Your task to perform on an android device: Open CNN.com Image 0: 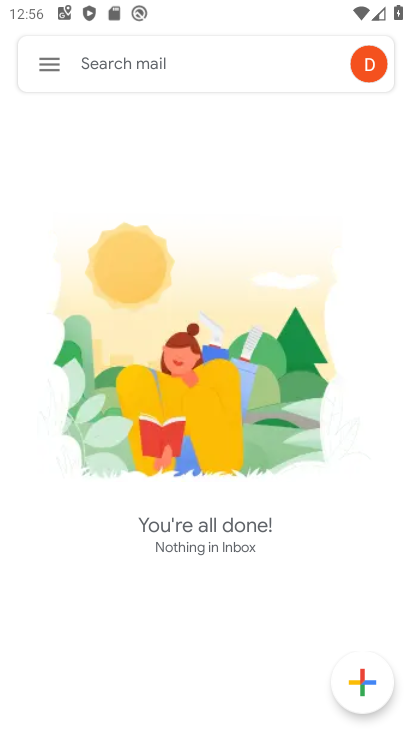
Step 0: press back button
Your task to perform on an android device: Open CNN.com Image 1: 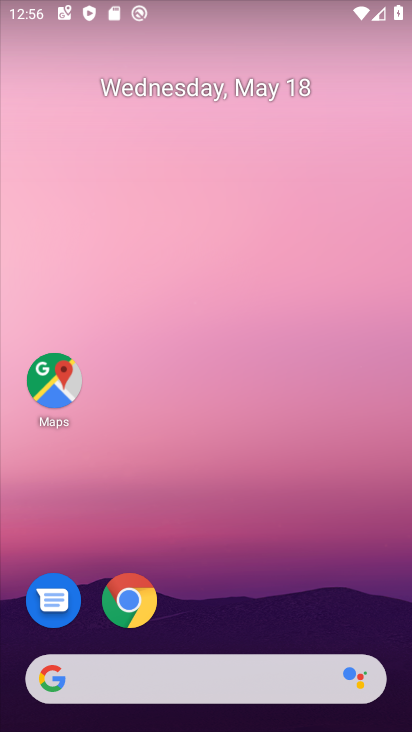
Step 1: click (127, 600)
Your task to perform on an android device: Open CNN.com Image 2: 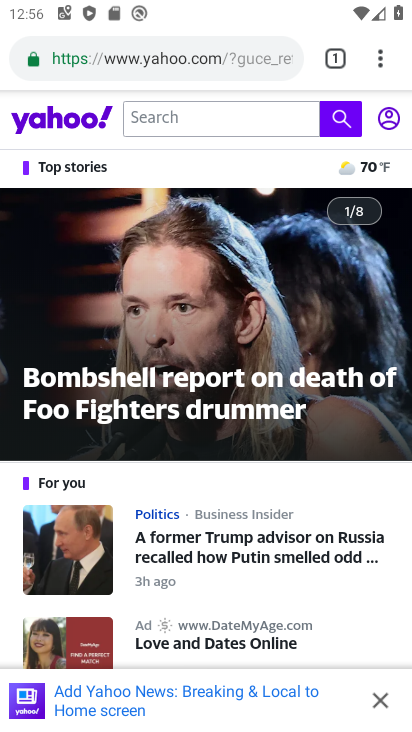
Step 2: click (226, 65)
Your task to perform on an android device: Open CNN.com Image 3: 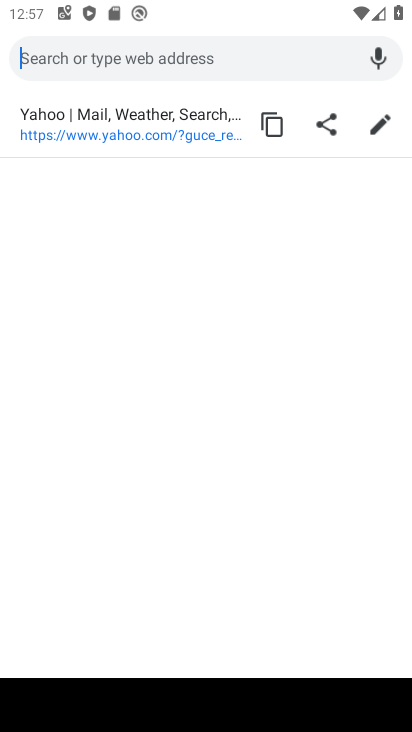
Step 3: type "CNN.com"
Your task to perform on an android device: Open CNN.com Image 4: 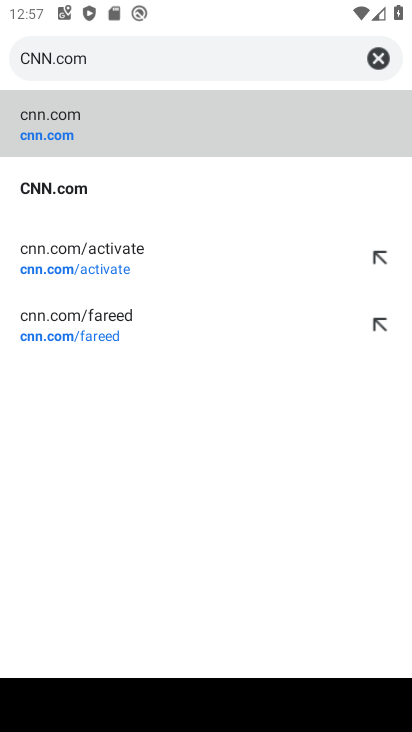
Step 4: click (30, 192)
Your task to perform on an android device: Open CNN.com Image 5: 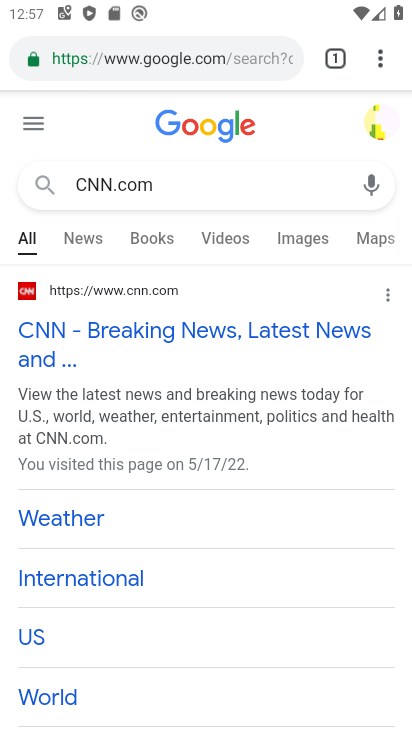
Step 5: click (145, 323)
Your task to perform on an android device: Open CNN.com Image 6: 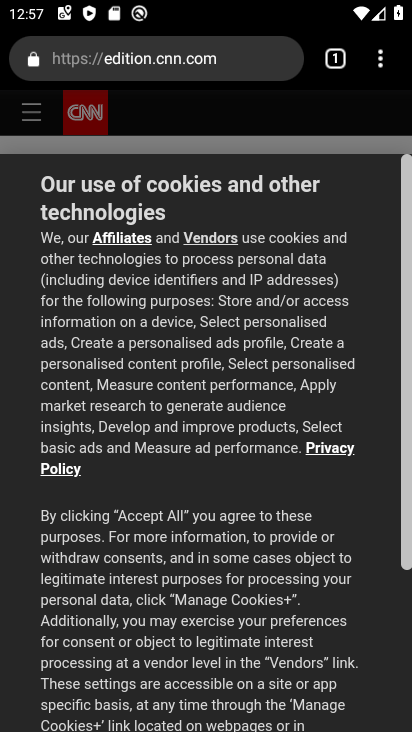
Step 6: task complete